Your task to perform on an android device: open a bookmark in the chrome app Image 0: 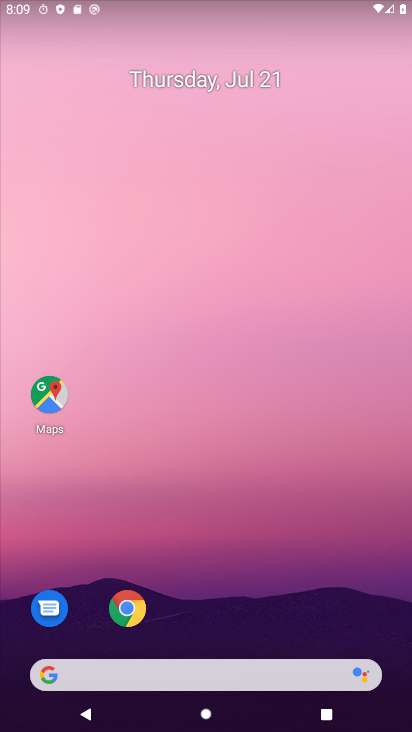
Step 0: click (121, 615)
Your task to perform on an android device: open a bookmark in the chrome app Image 1: 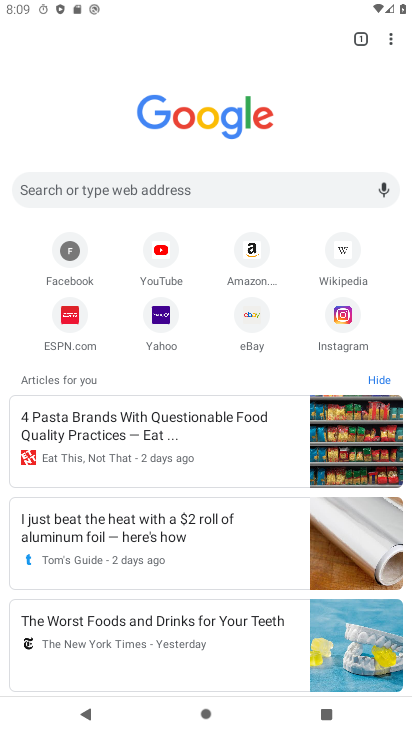
Step 1: task complete